Your task to perform on an android device: Open Chrome and go to settings Image 0: 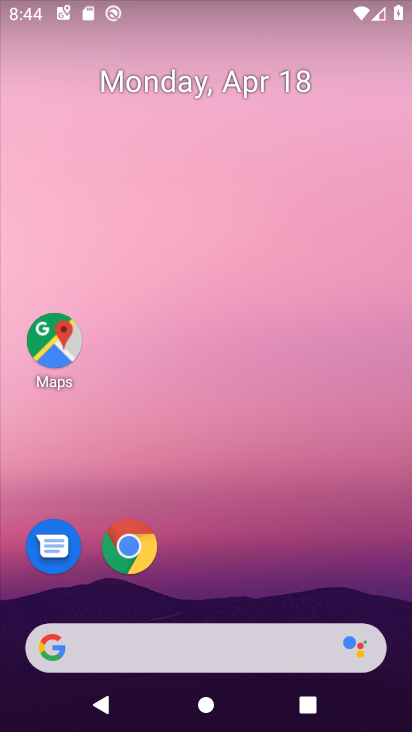
Step 0: drag from (376, 560) to (309, 204)
Your task to perform on an android device: Open Chrome and go to settings Image 1: 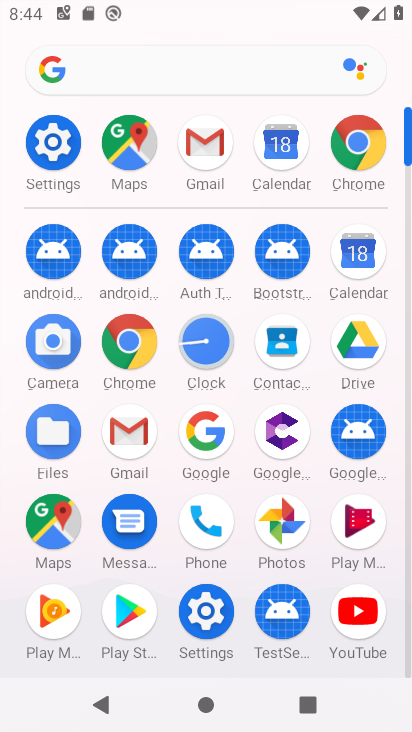
Step 1: click (133, 342)
Your task to perform on an android device: Open Chrome and go to settings Image 2: 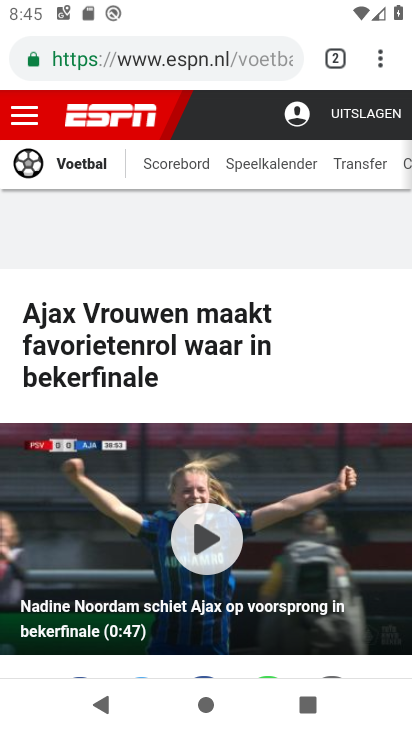
Step 2: task complete